Your task to perform on an android device: toggle wifi Image 0: 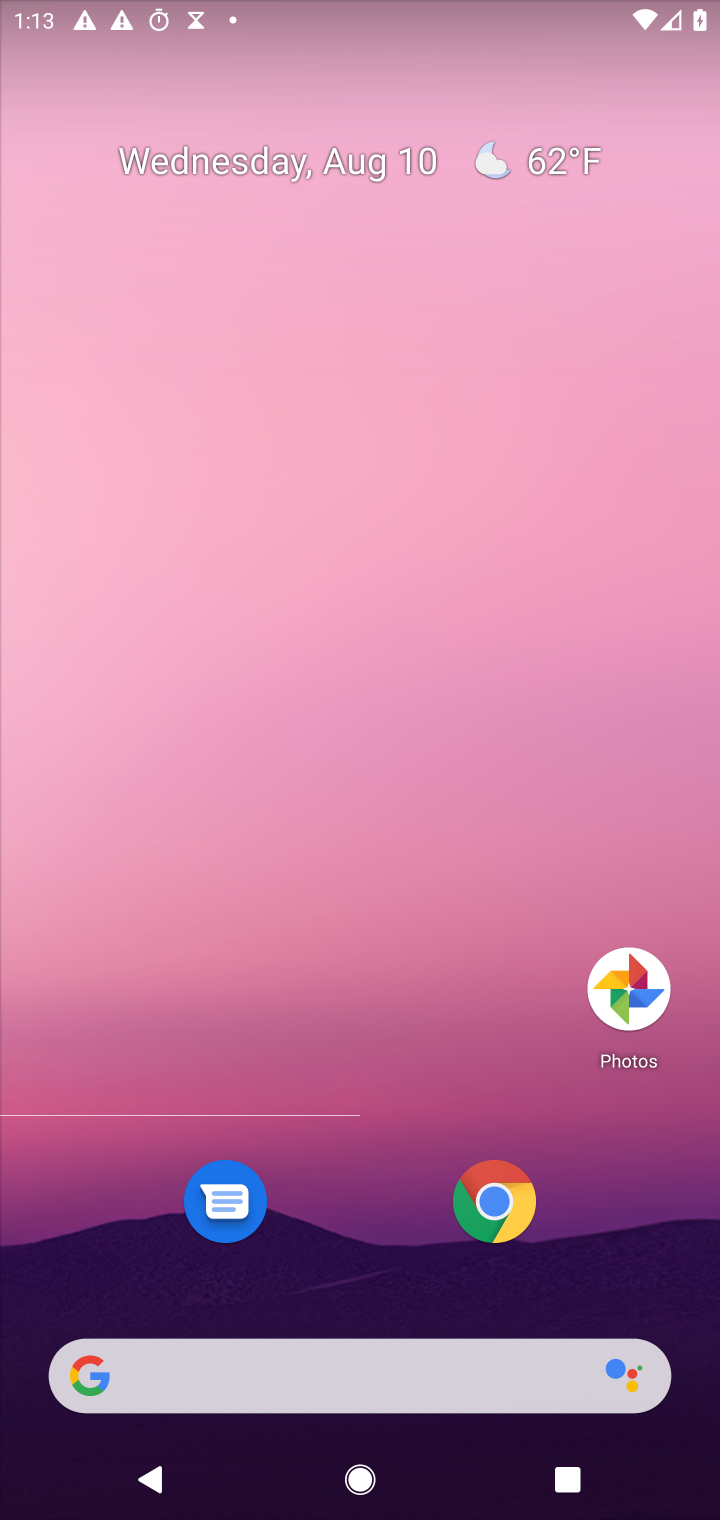
Step 0: press home button
Your task to perform on an android device: toggle wifi Image 1: 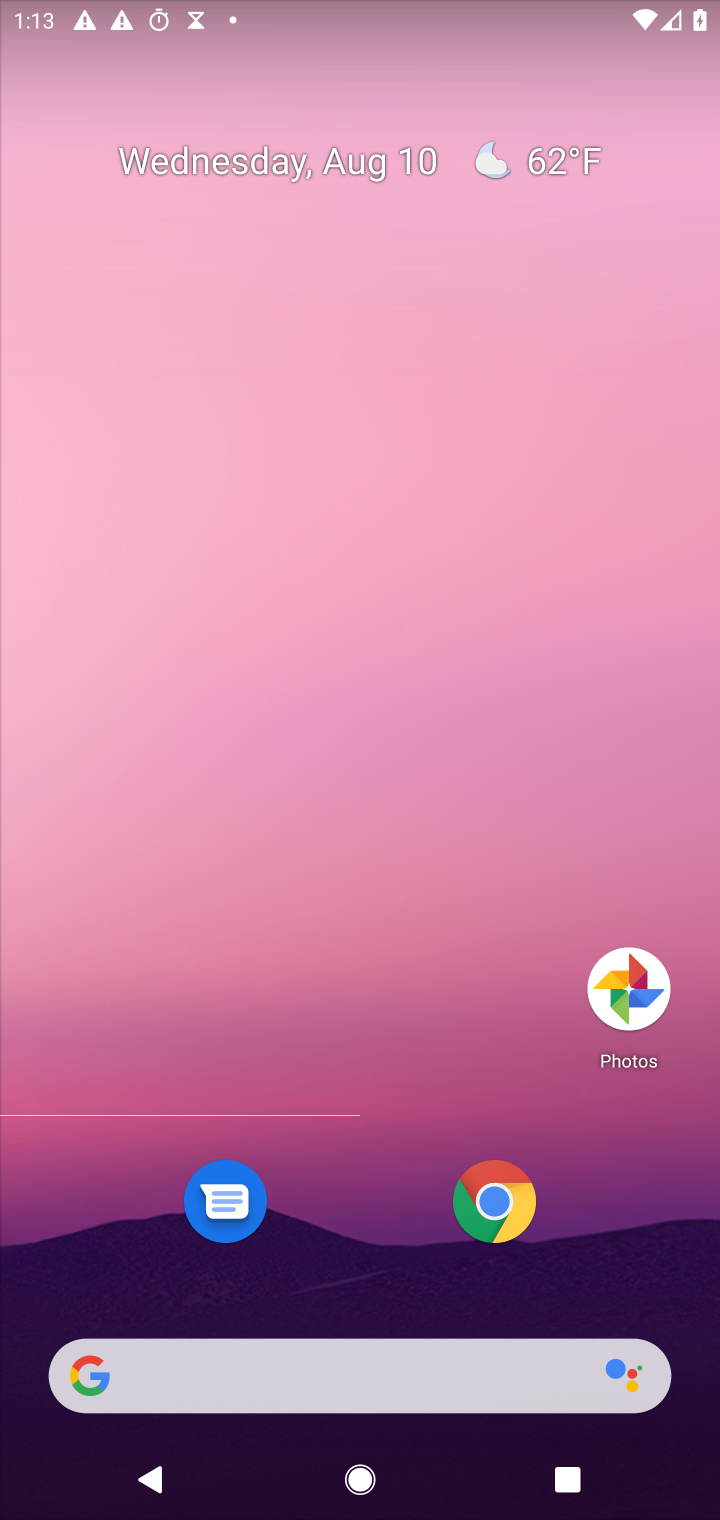
Step 1: drag from (391, 1274) to (343, 269)
Your task to perform on an android device: toggle wifi Image 2: 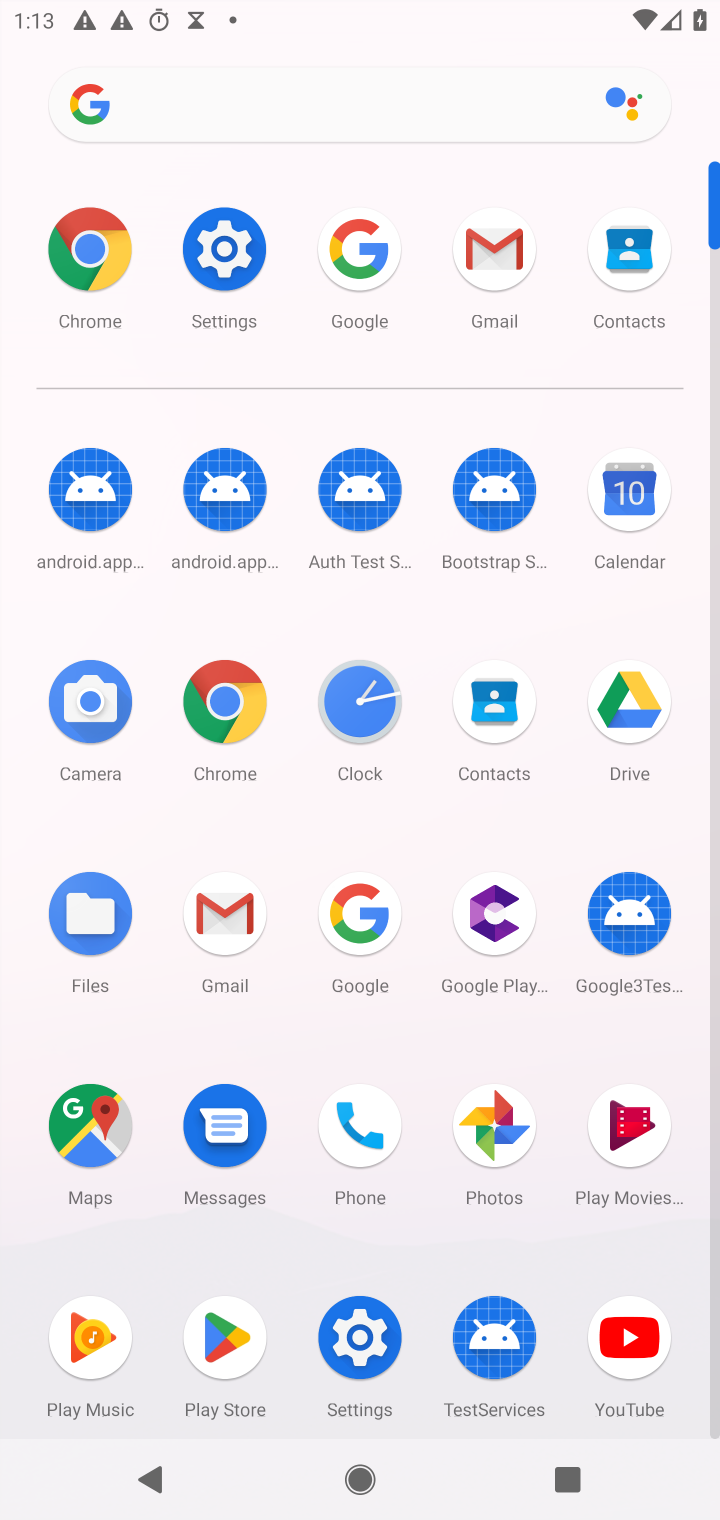
Step 2: click (222, 256)
Your task to perform on an android device: toggle wifi Image 3: 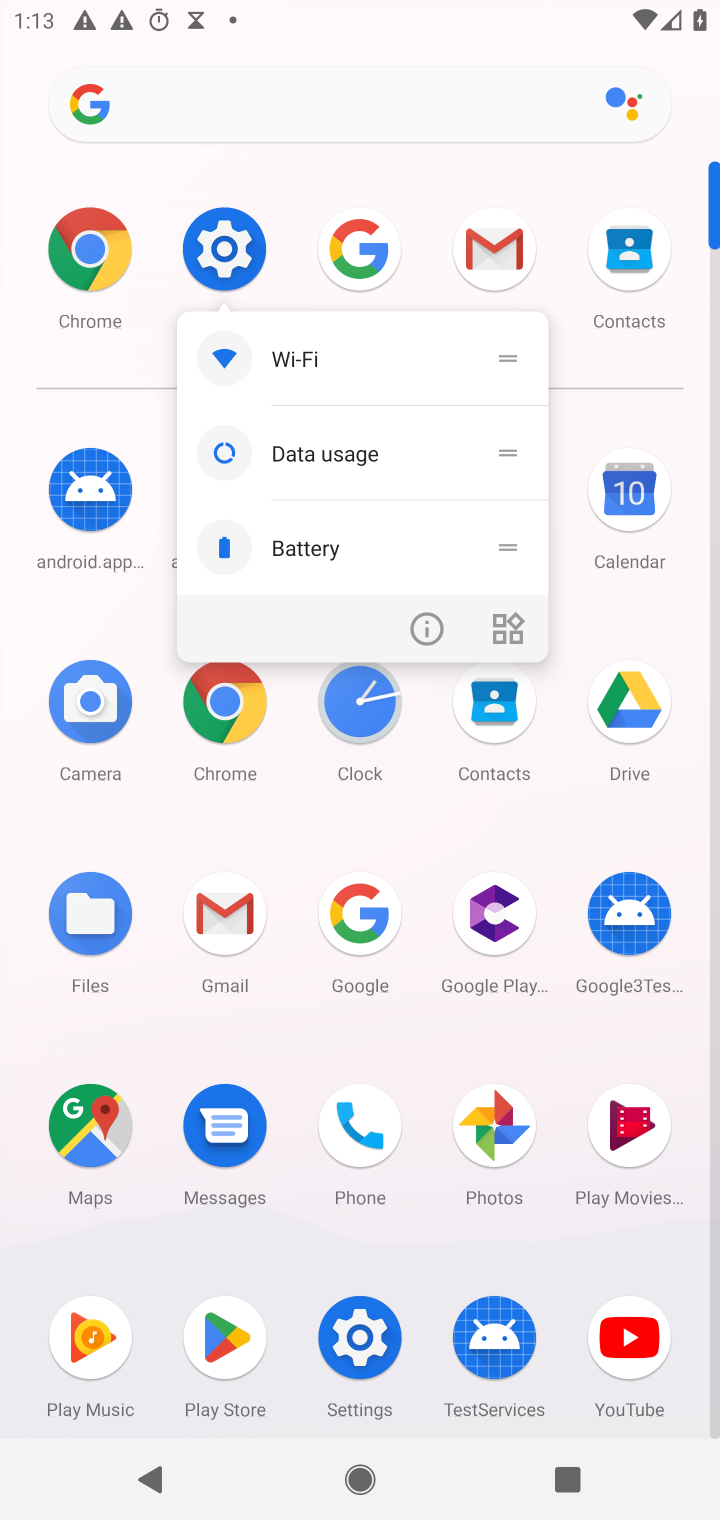
Step 3: click (222, 256)
Your task to perform on an android device: toggle wifi Image 4: 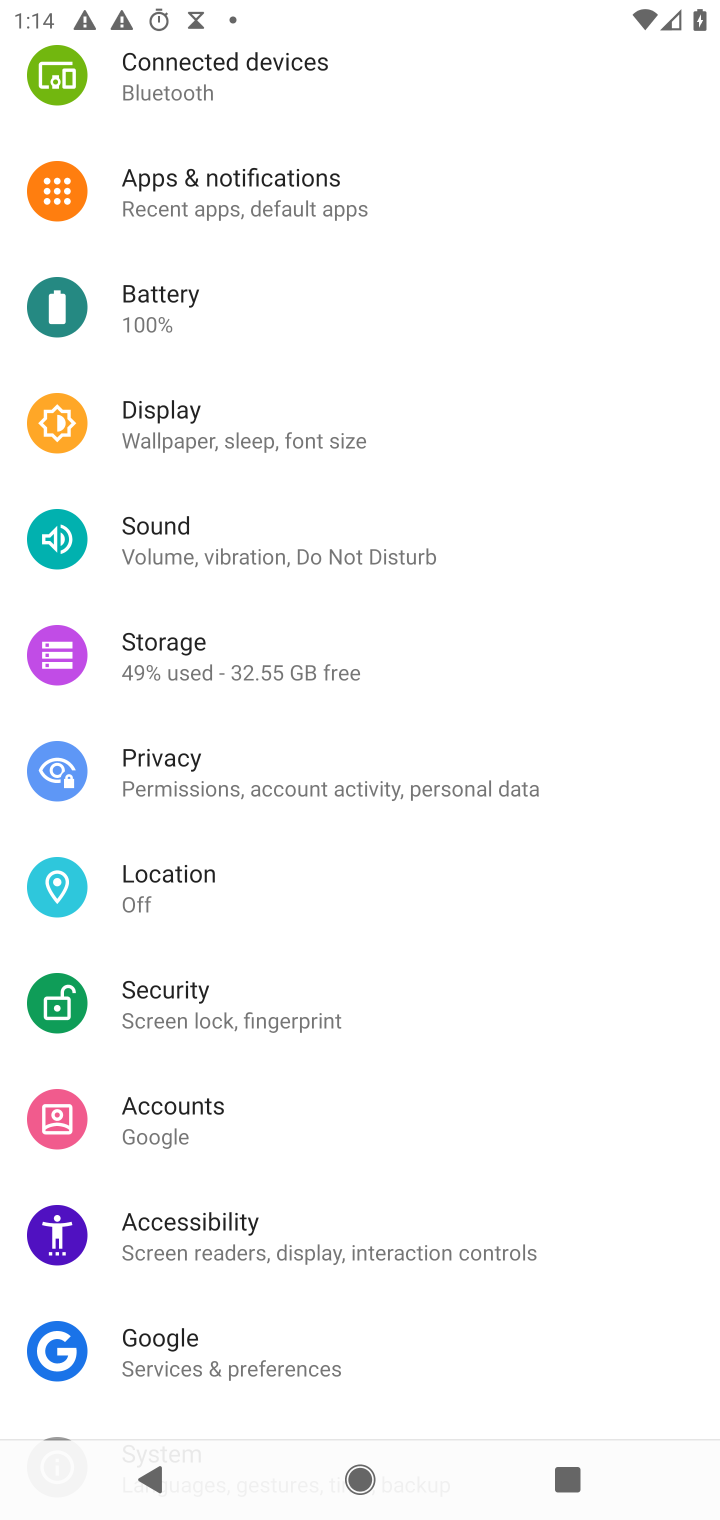
Step 4: drag from (202, 132) to (276, 986)
Your task to perform on an android device: toggle wifi Image 5: 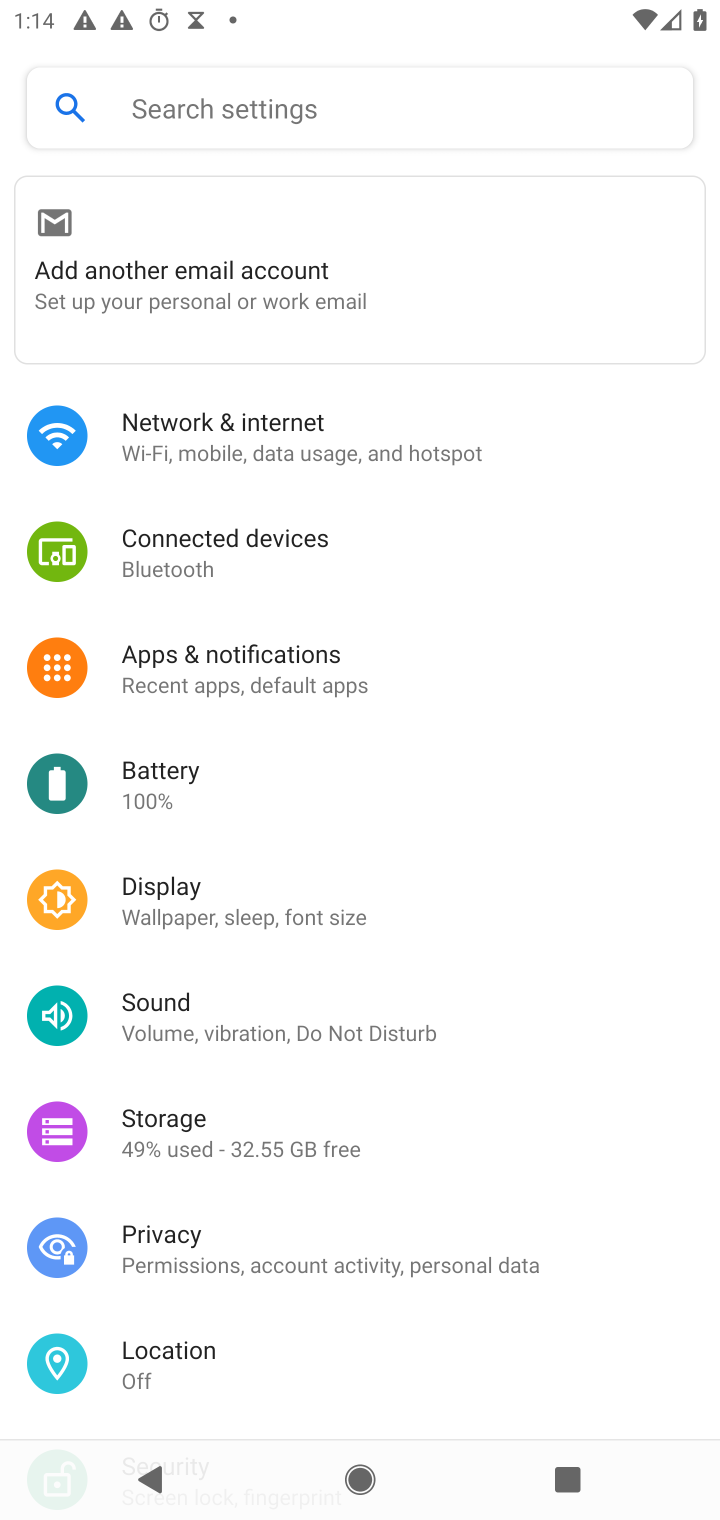
Step 5: click (215, 424)
Your task to perform on an android device: toggle wifi Image 6: 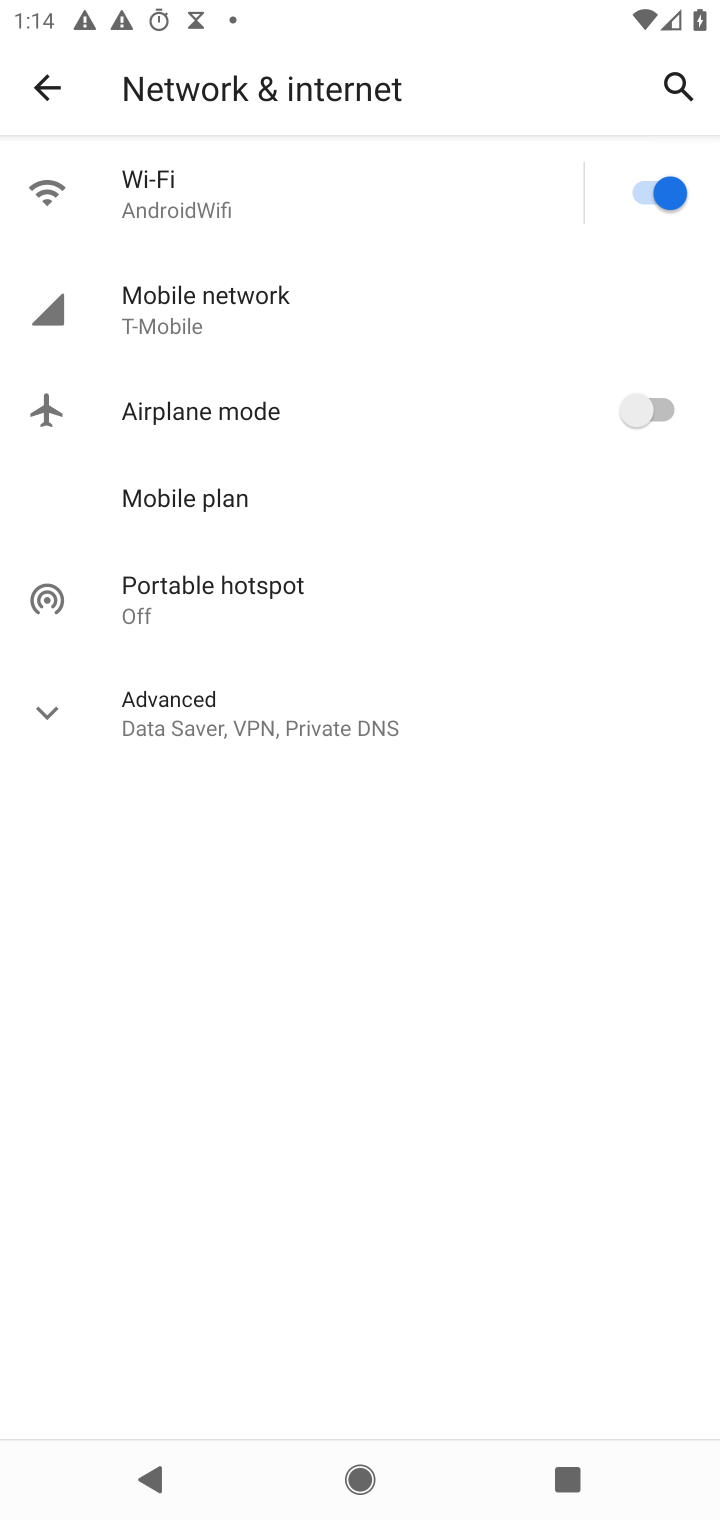
Step 6: click (646, 201)
Your task to perform on an android device: toggle wifi Image 7: 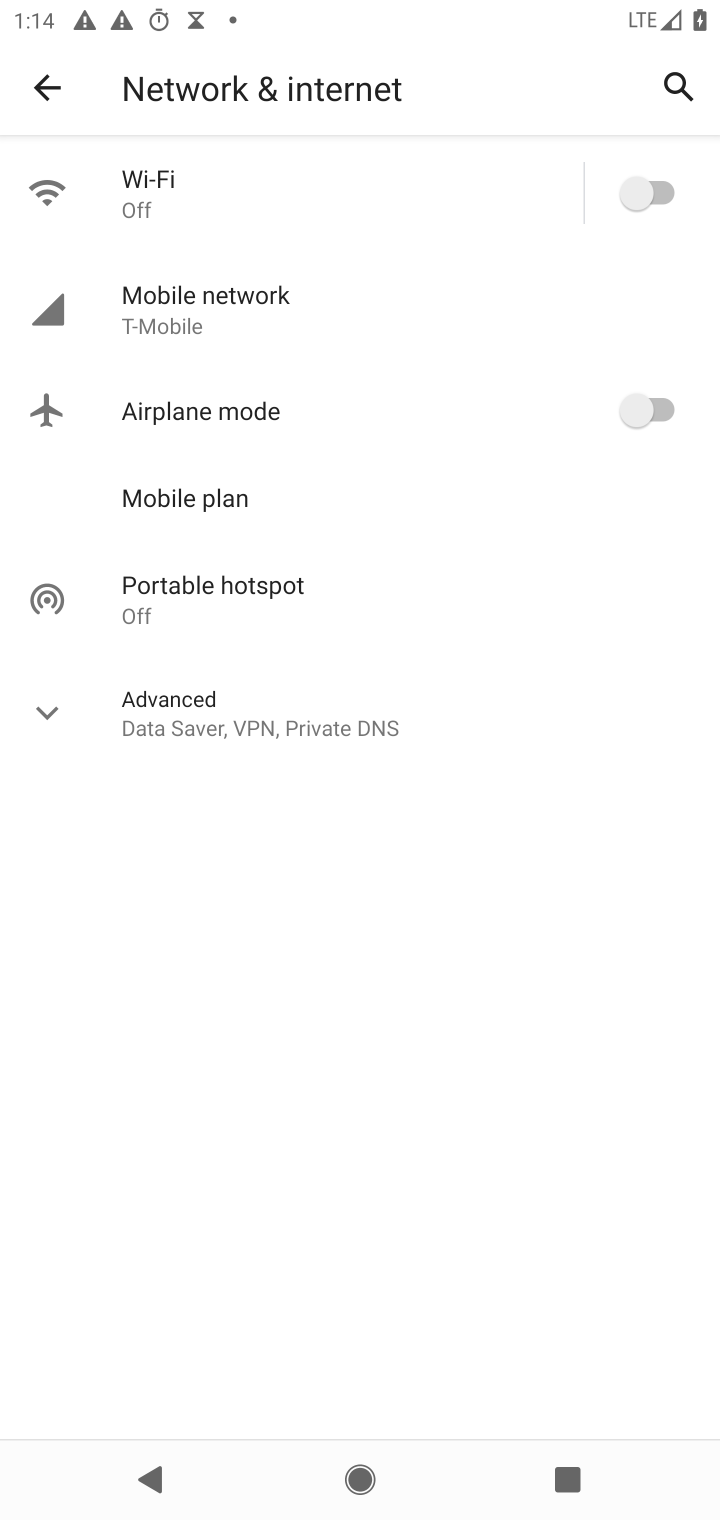
Step 7: task complete